Your task to perform on an android device: uninstall "Upside-Cash back on gas & food" Image 0: 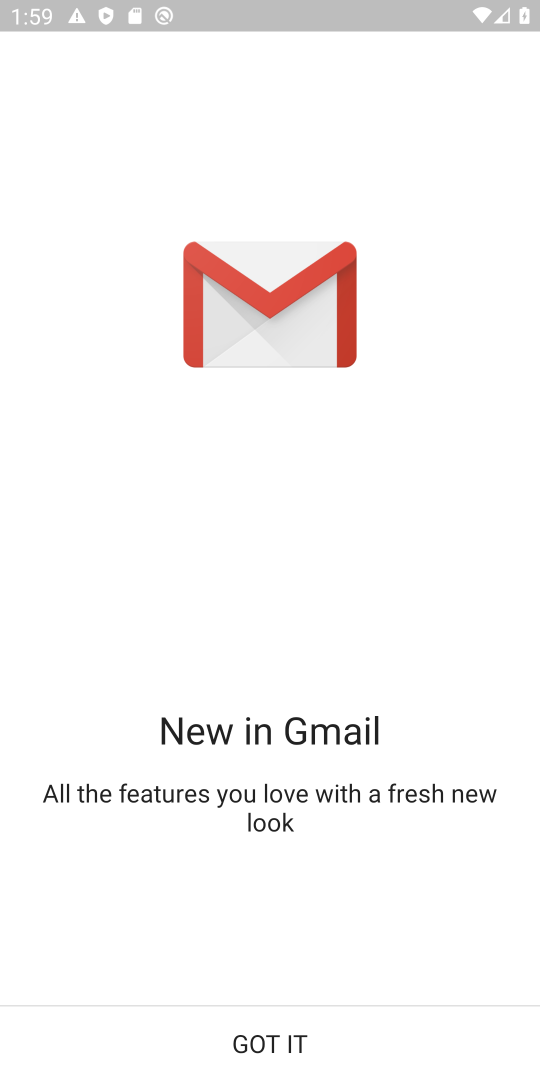
Step 0: press home button
Your task to perform on an android device: uninstall "Upside-Cash back on gas & food" Image 1: 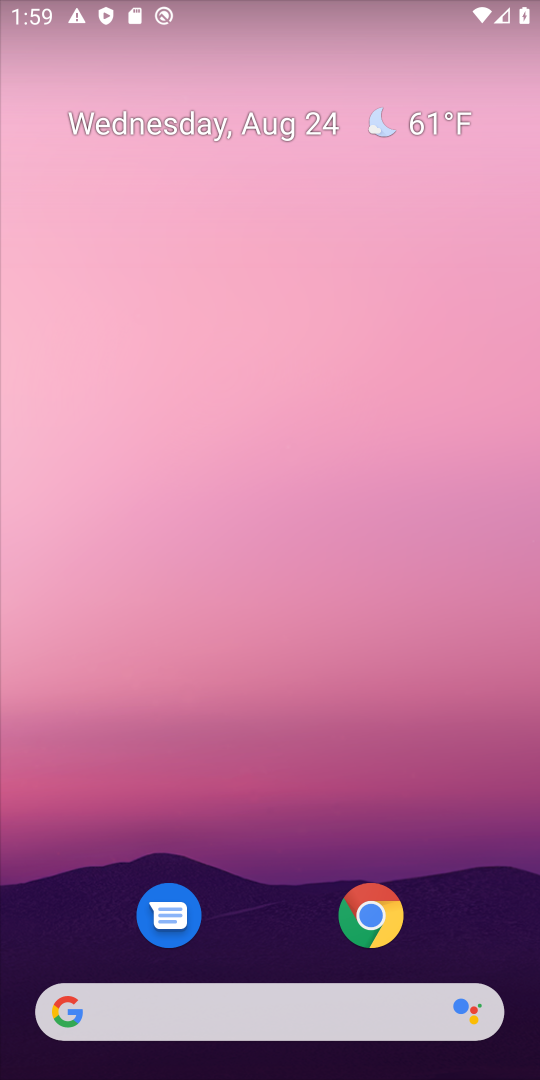
Step 1: drag from (233, 826) to (262, 281)
Your task to perform on an android device: uninstall "Upside-Cash back on gas & food" Image 2: 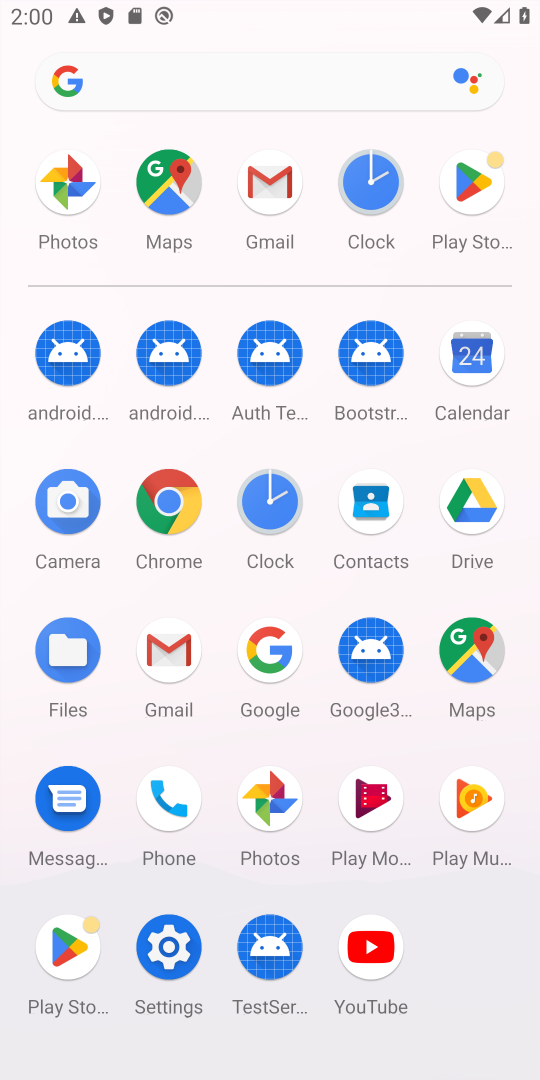
Step 2: click (460, 179)
Your task to perform on an android device: uninstall "Upside-Cash back on gas & food" Image 3: 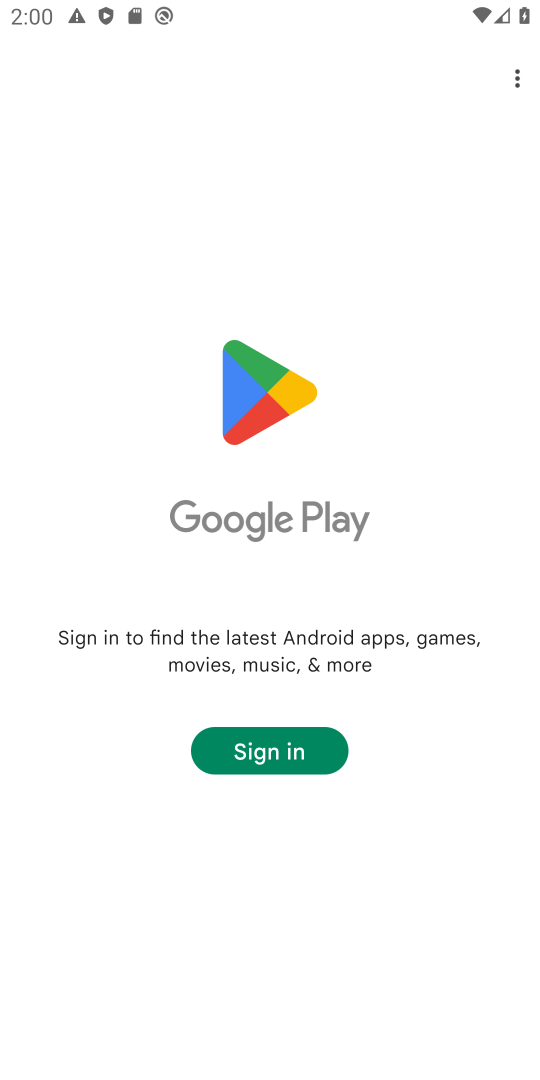
Step 3: task complete